Your task to perform on an android device: search for starred emails in the gmail app Image 0: 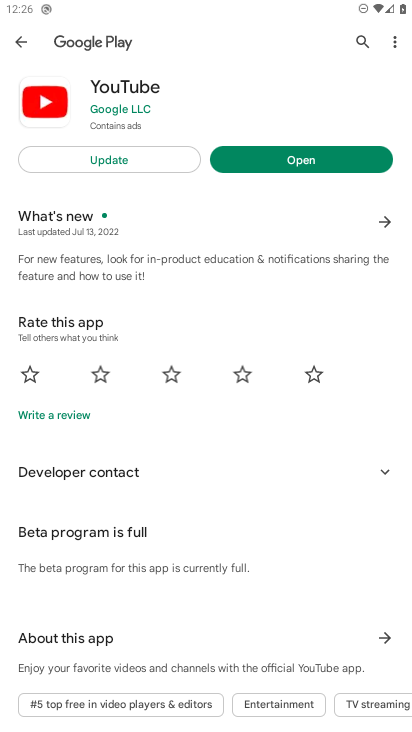
Step 0: press home button
Your task to perform on an android device: search for starred emails in the gmail app Image 1: 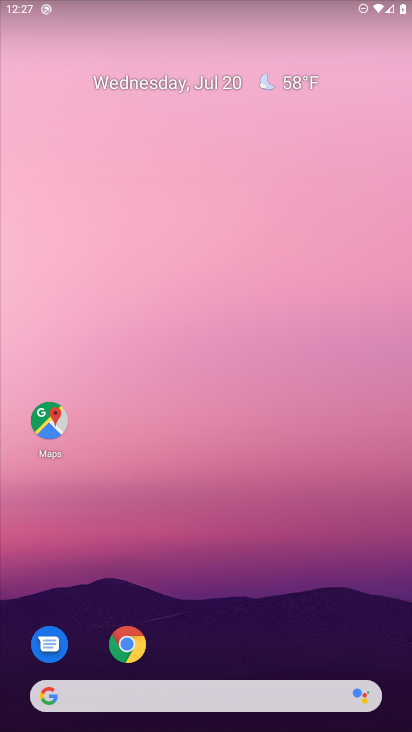
Step 1: drag from (25, 677) to (221, 91)
Your task to perform on an android device: search for starred emails in the gmail app Image 2: 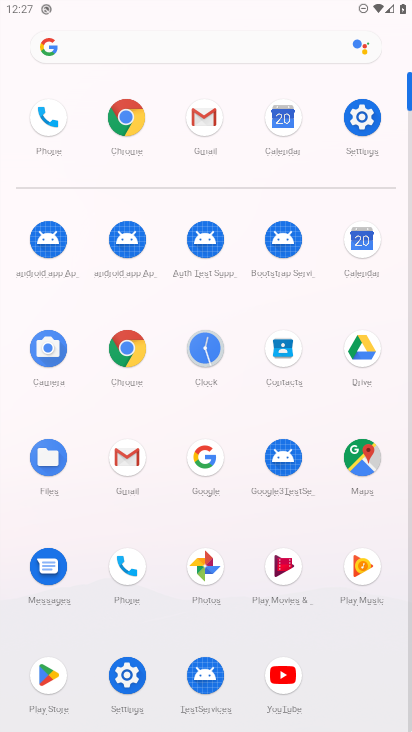
Step 2: click (124, 468)
Your task to perform on an android device: search for starred emails in the gmail app Image 3: 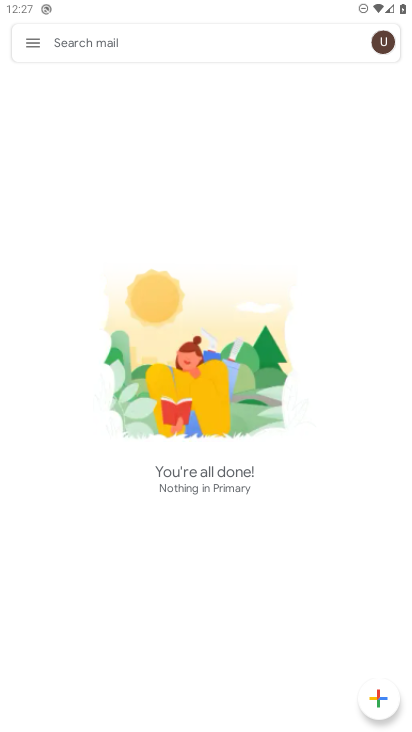
Step 3: click (35, 34)
Your task to perform on an android device: search for starred emails in the gmail app Image 4: 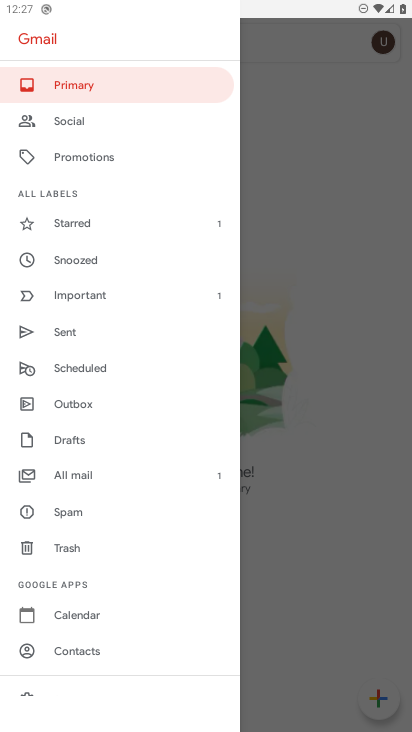
Step 4: click (84, 227)
Your task to perform on an android device: search for starred emails in the gmail app Image 5: 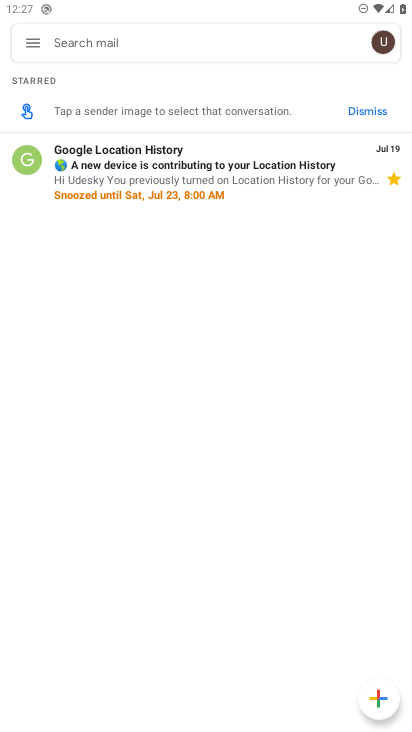
Step 5: task complete